Your task to perform on an android device: What is the recent news? Image 0: 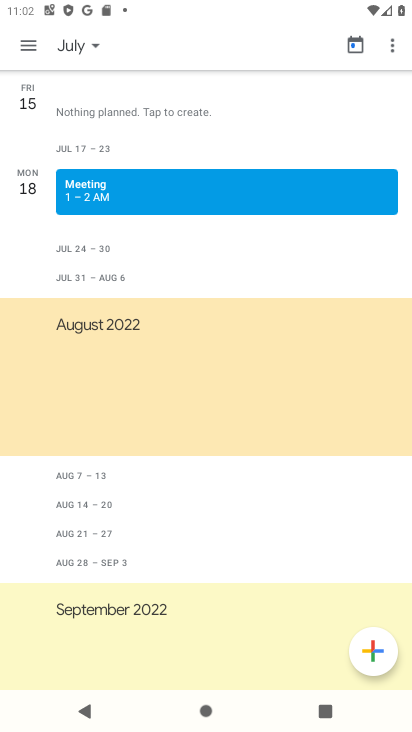
Step 0: press home button
Your task to perform on an android device: What is the recent news? Image 1: 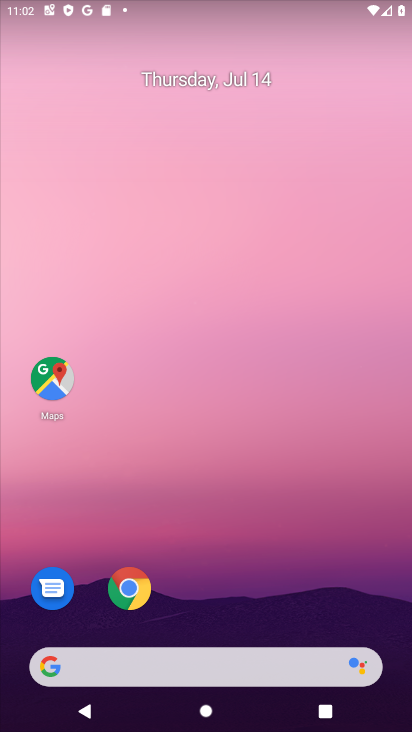
Step 1: click (162, 664)
Your task to perform on an android device: What is the recent news? Image 2: 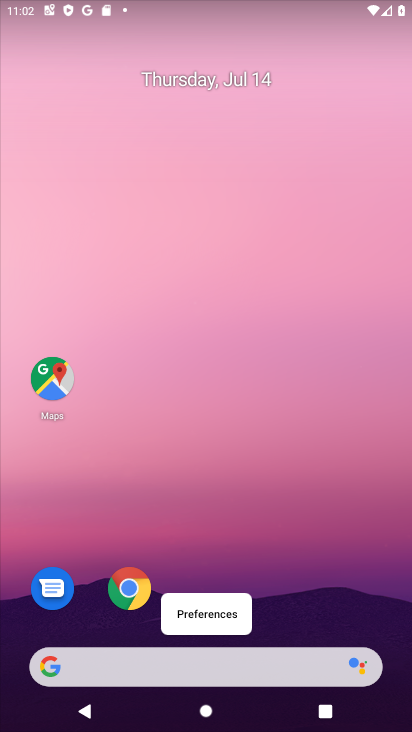
Step 2: click (148, 669)
Your task to perform on an android device: What is the recent news? Image 3: 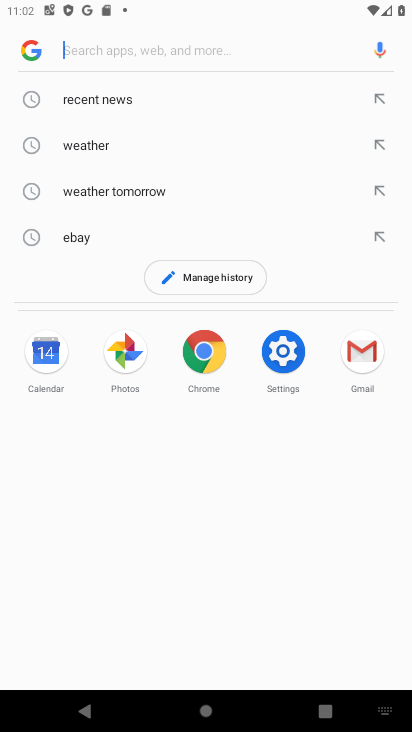
Step 3: click (107, 107)
Your task to perform on an android device: What is the recent news? Image 4: 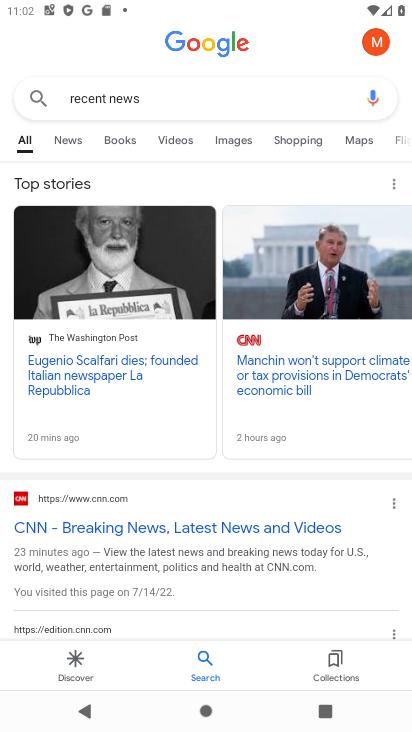
Step 4: click (78, 140)
Your task to perform on an android device: What is the recent news? Image 5: 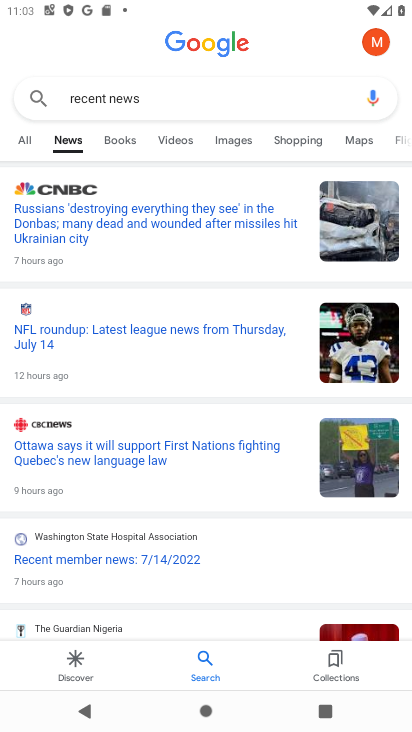
Step 5: task complete